Your task to perform on an android device: open app "Roku - Official Remote Control" Image 0: 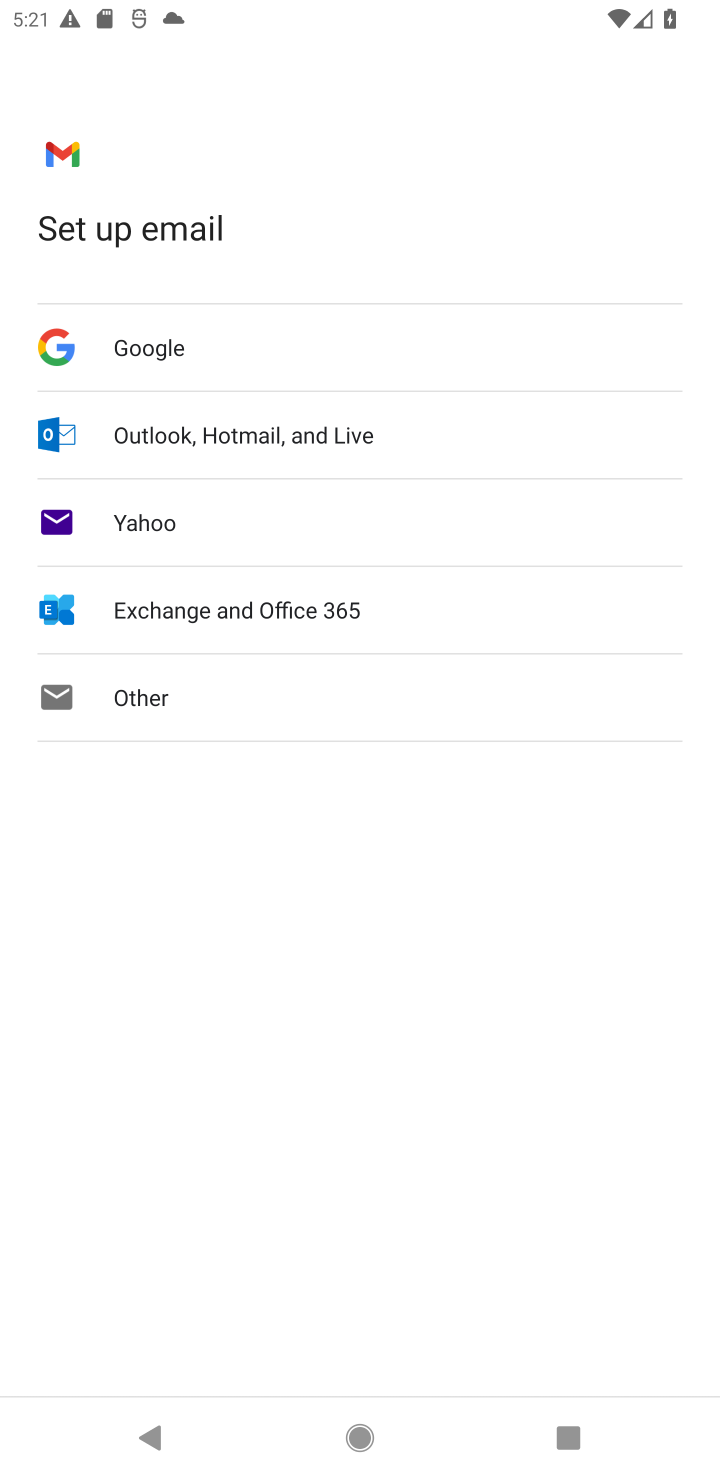
Step 0: press home button
Your task to perform on an android device: open app "Roku - Official Remote Control" Image 1: 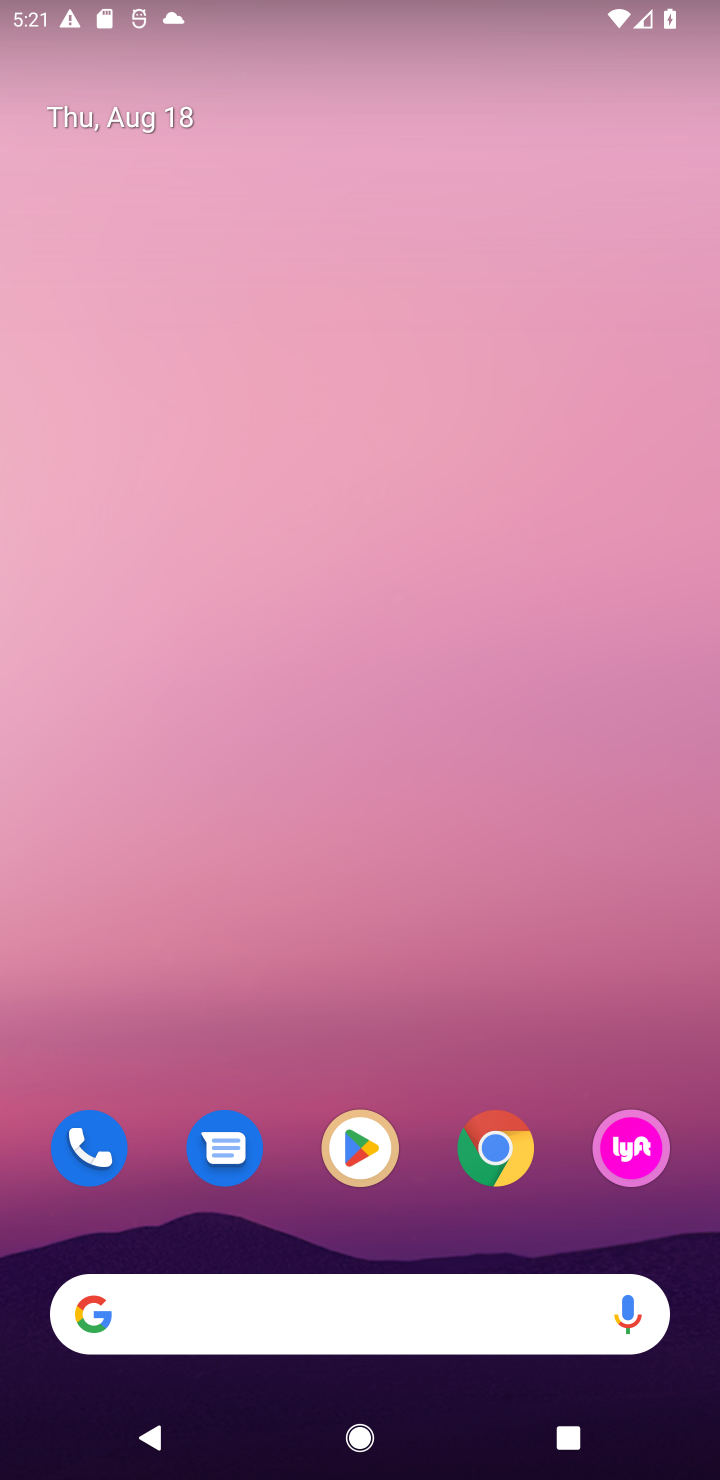
Step 1: drag from (406, 450) to (504, 114)
Your task to perform on an android device: open app "Roku - Official Remote Control" Image 2: 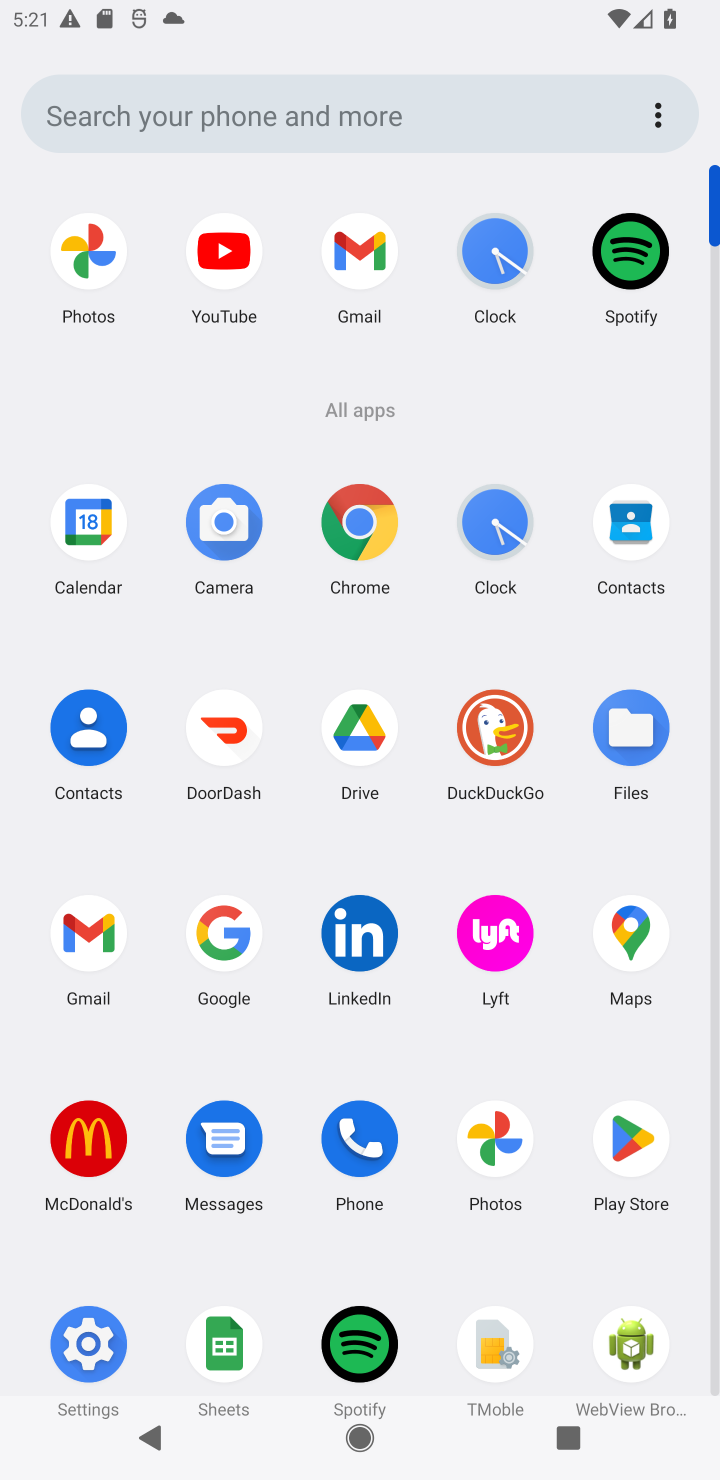
Step 2: click (589, 1125)
Your task to perform on an android device: open app "Roku - Official Remote Control" Image 3: 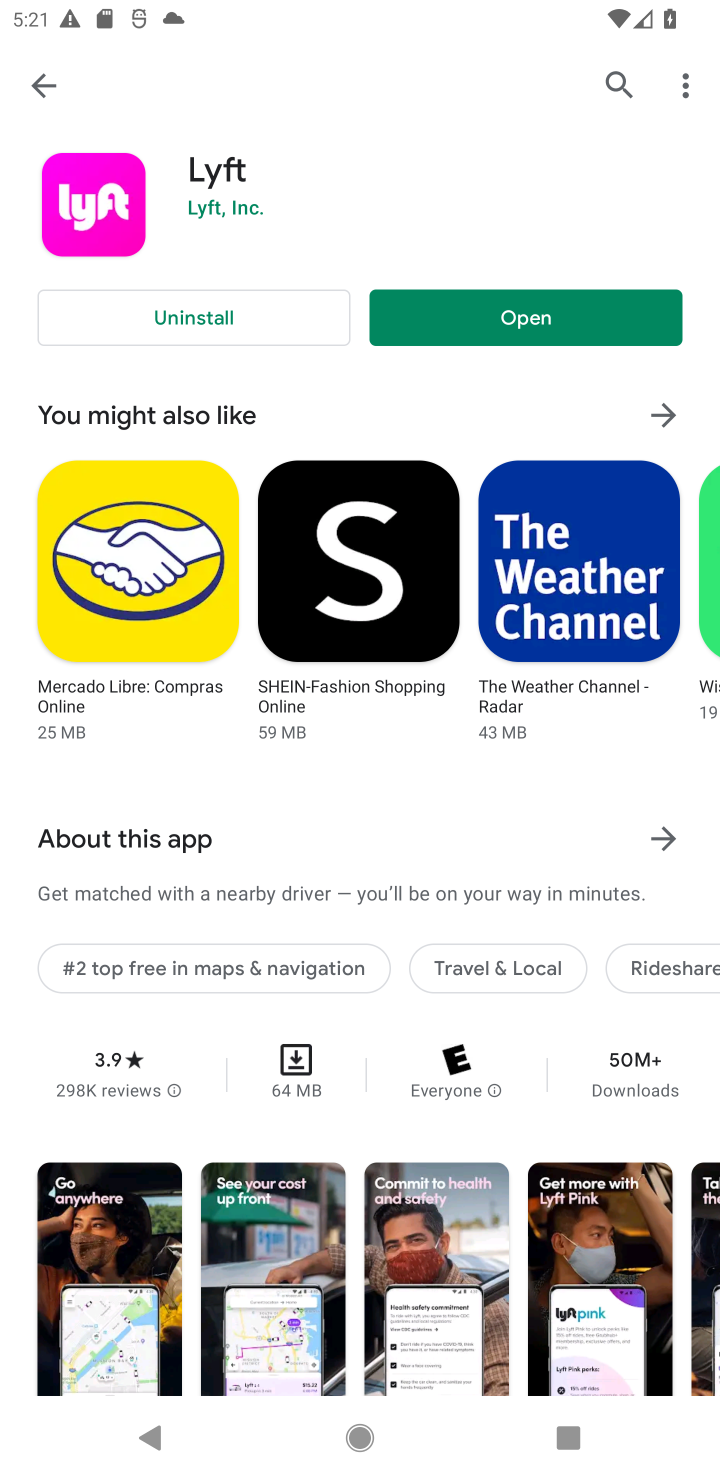
Step 3: press back button
Your task to perform on an android device: open app "Roku - Official Remote Control" Image 4: 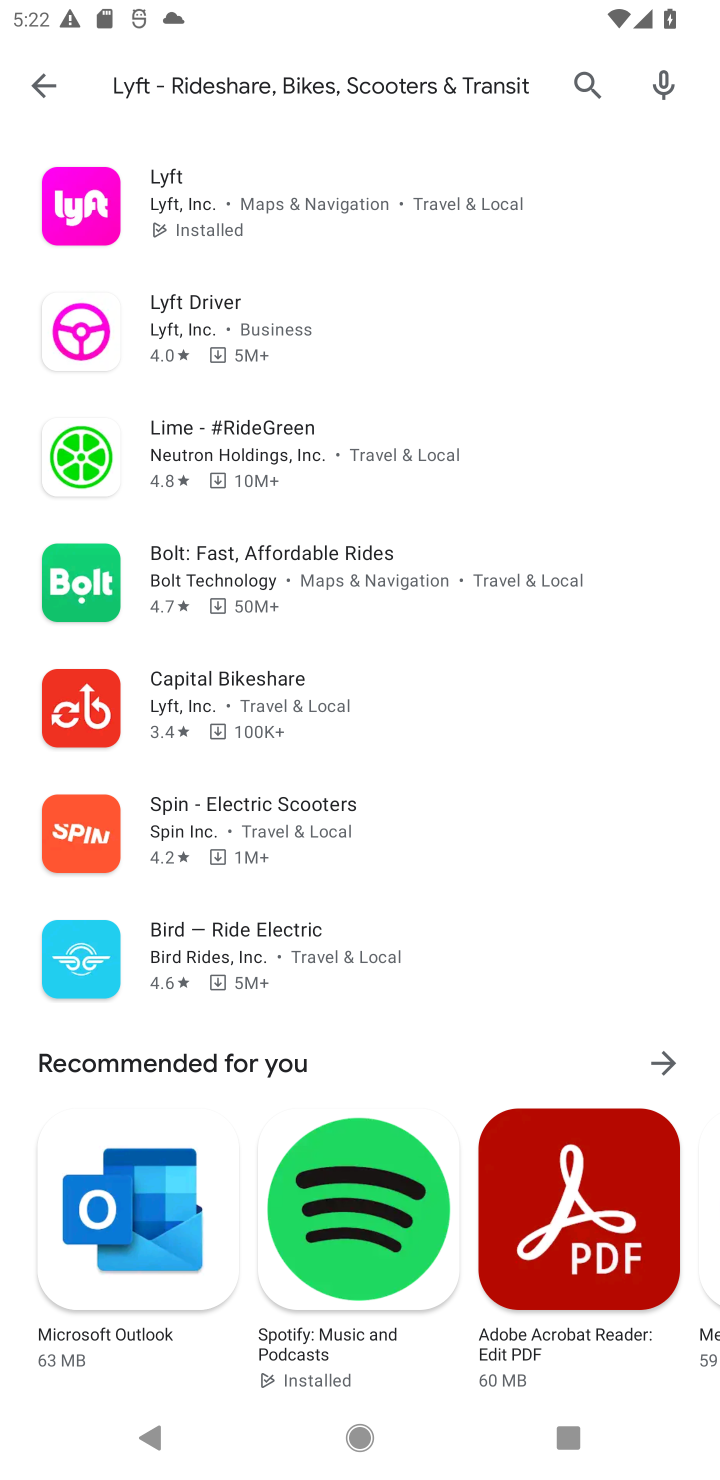
Step 4: type "Roku - Official Remote Control"
Your task to perform on an android device: open app "Roku - Official Remote Control" Image 5: 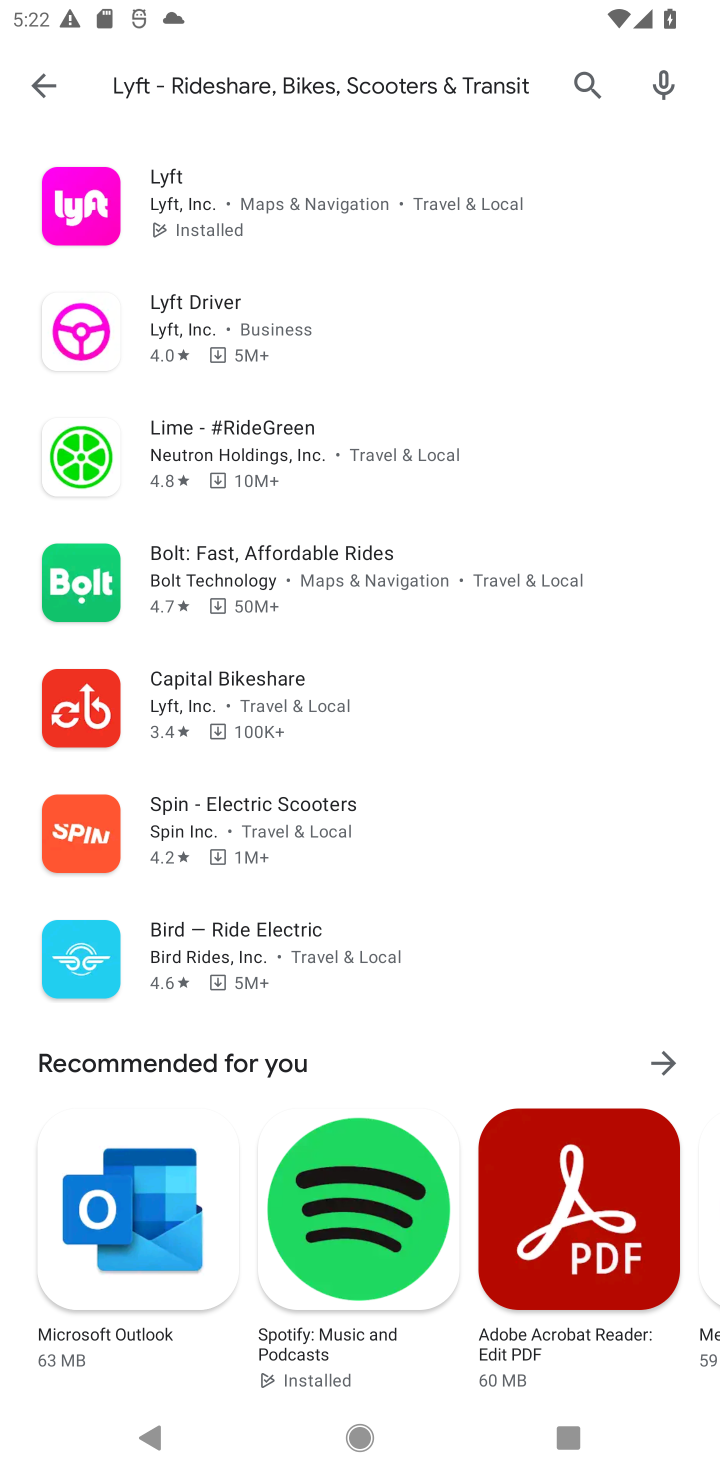
Step 5: press enter
Your task to perform on an android device: open app "Roku - Official Remote Control" Image 6: 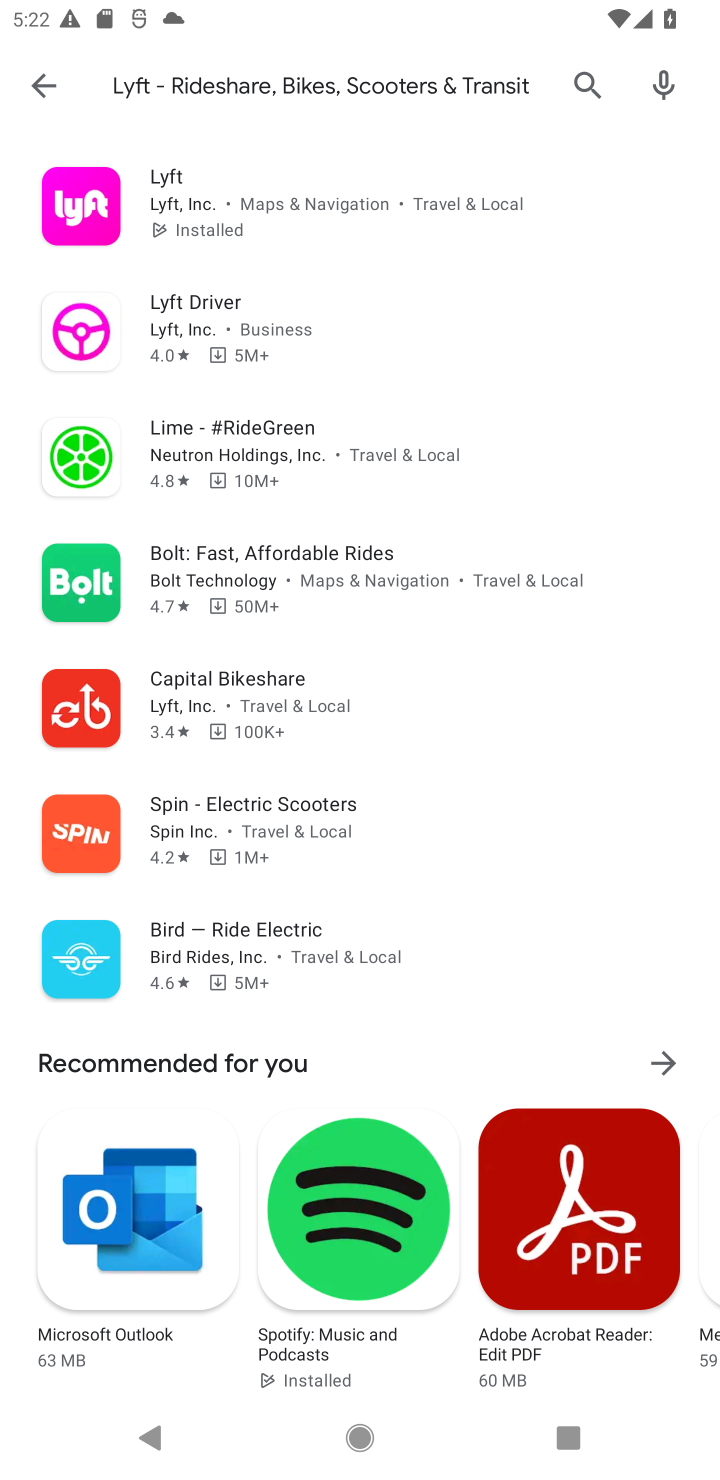
Step 6: press back button
Your task to perform on an android device: open app "Roku - Official Remote Control" Image 7: 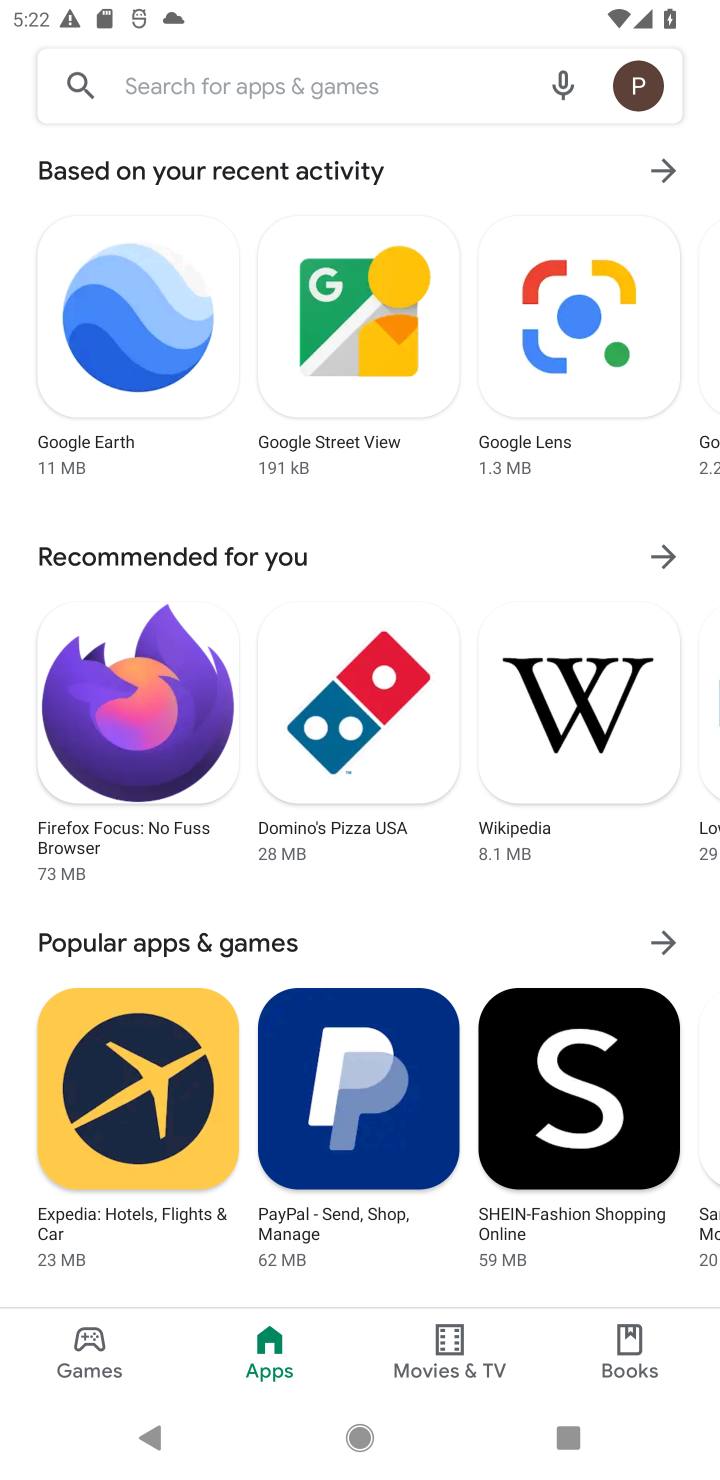
Step 7: click (251, 81)
Your task to perform on an android device: open app "Roku - Official Remote Control" Image 8: 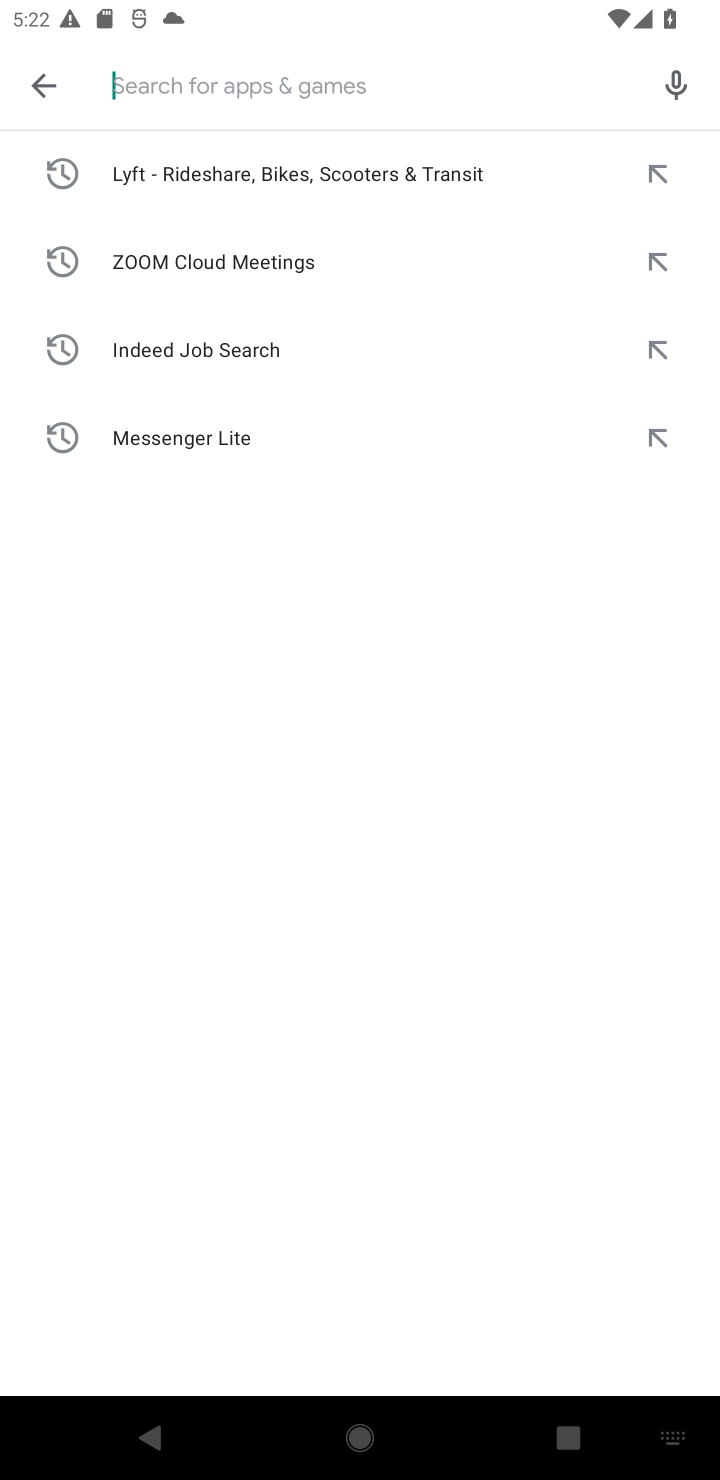
Step 8: type "Roku - Official Remote Control"
Your task to perform on an android device: open app "Roku - Official Remote Control" Image 9: 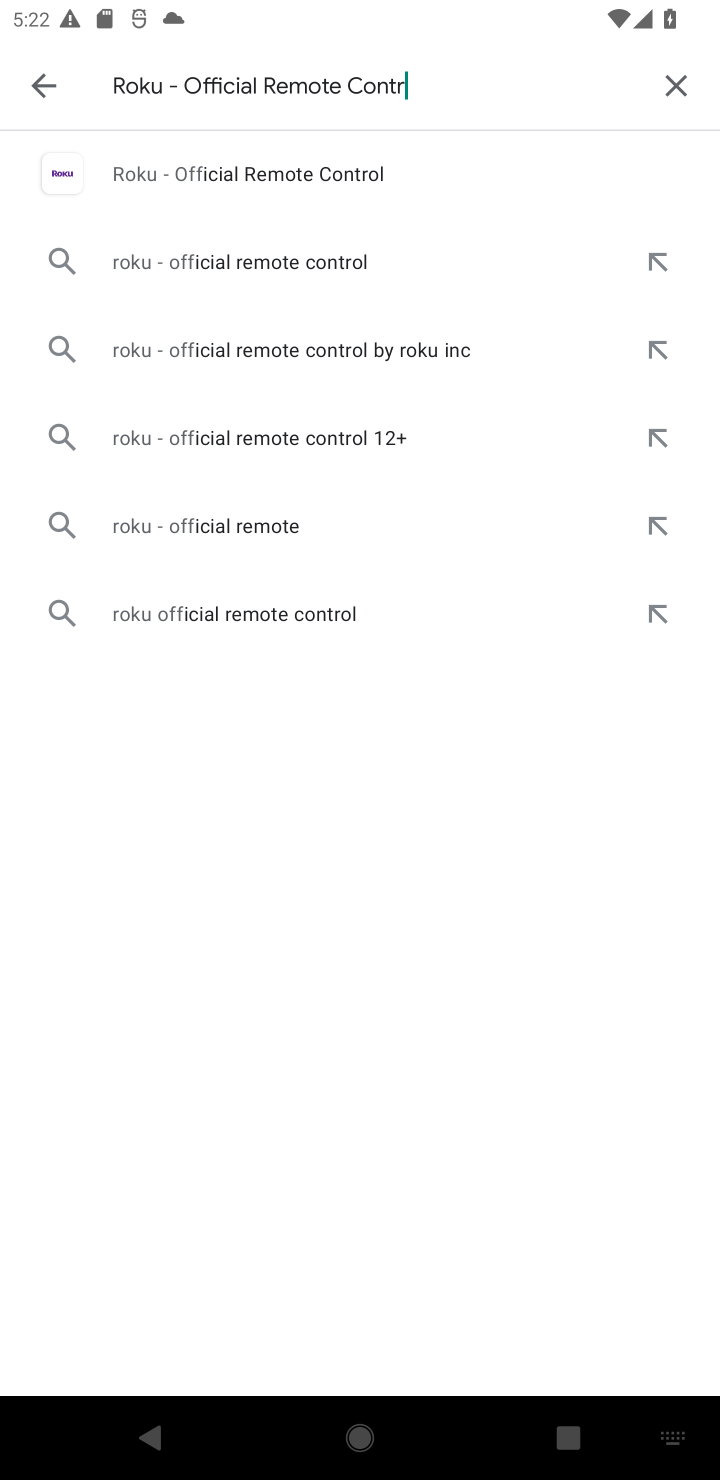
Step 9: press enter
Your task to perform on an android device: open app "Roku - Official Remote Control" Image 10: 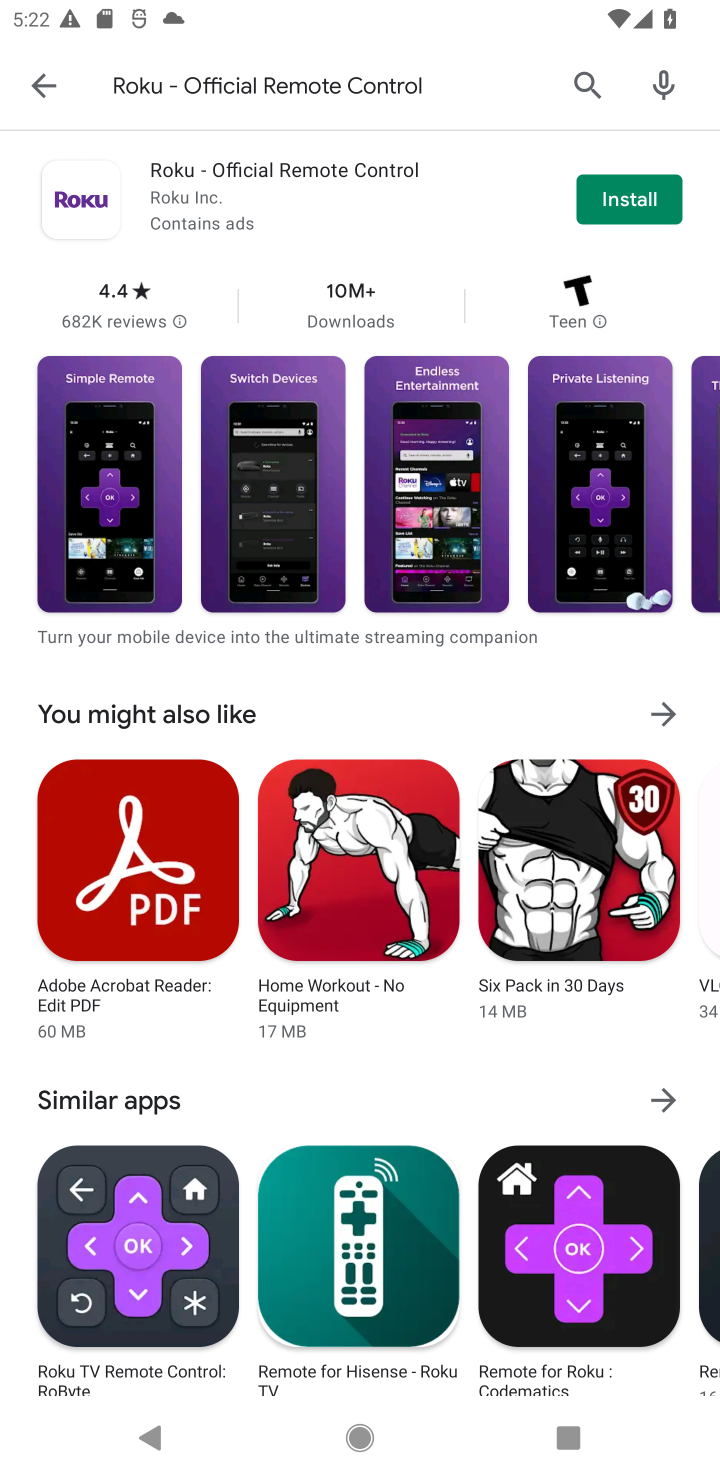
Step 10: task complete